Your task to perform on an android device: Open Google Maps Image 0: 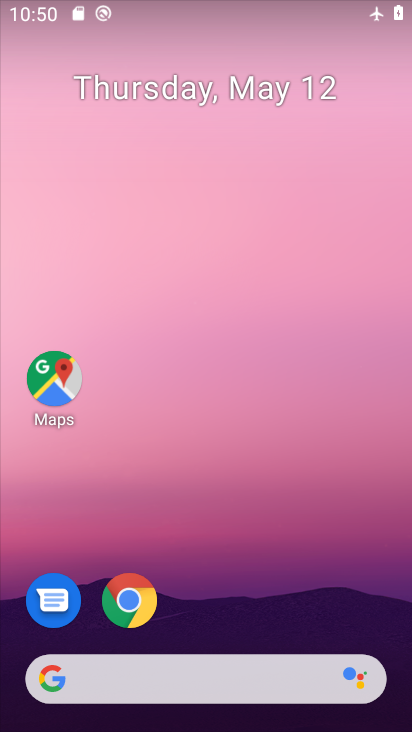
Step 0: click (64, 379)
Your task to perform on an android device: Open Google Maps Image 1: 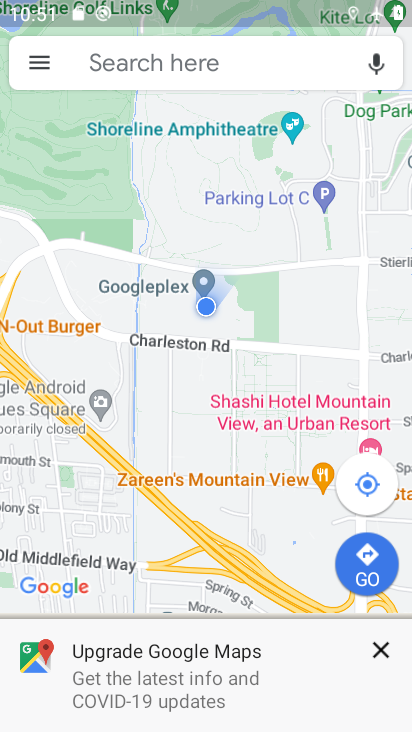
Step 1: task complete